Your task to perform on an android device: Go to ESPN.com Image 0: 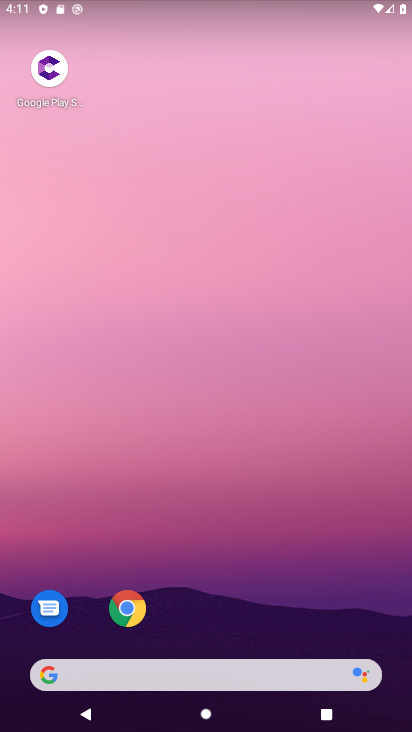
Step 0: drag from (322, 590) to (334, 120)
Your task to perform on an android device: Go to ESPN.com Image 1: 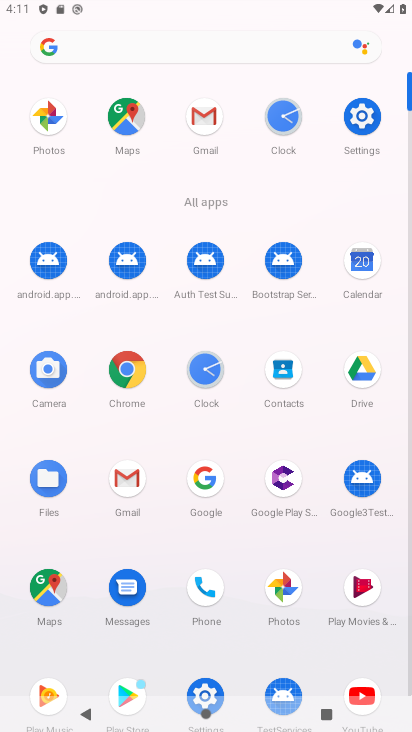
Step 1: click (137, 376)
Your task to perform on an android device: Go to ESPN.com Image 2: 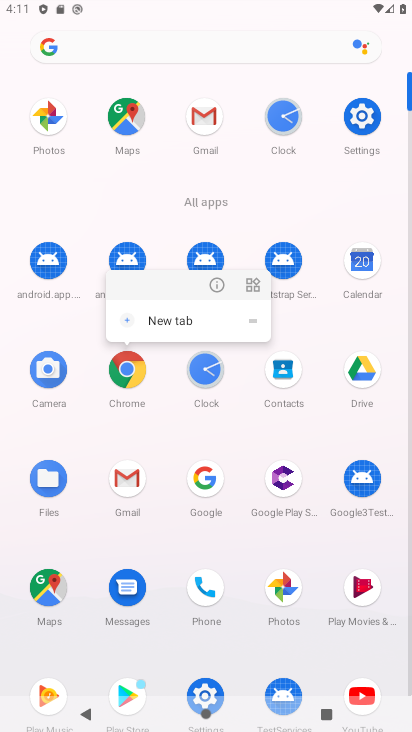
Step 2: click (126, 366)
Your task to perform on an android device: Go to ESPN.com Image 3: 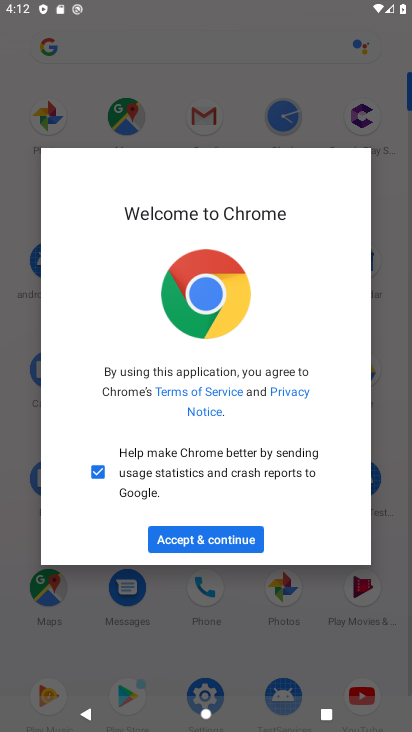
Step 3: click (252, 533)
Your task to perform on an android device: Go to ESPN.com Image 4: 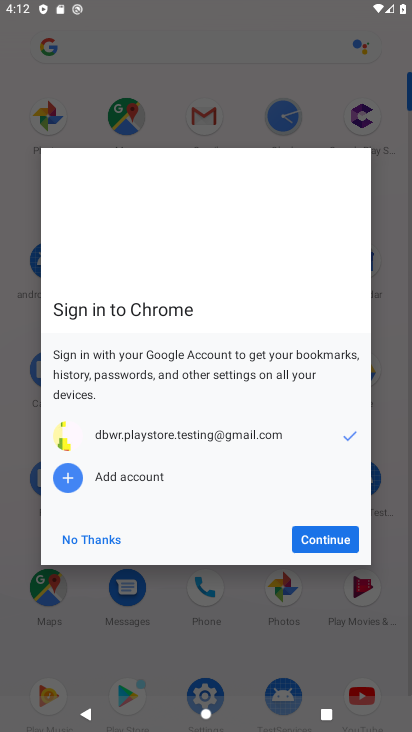
Step 4: click (333, 552)
Your task to perform on an android device: Go to ESPN.com Image 5: 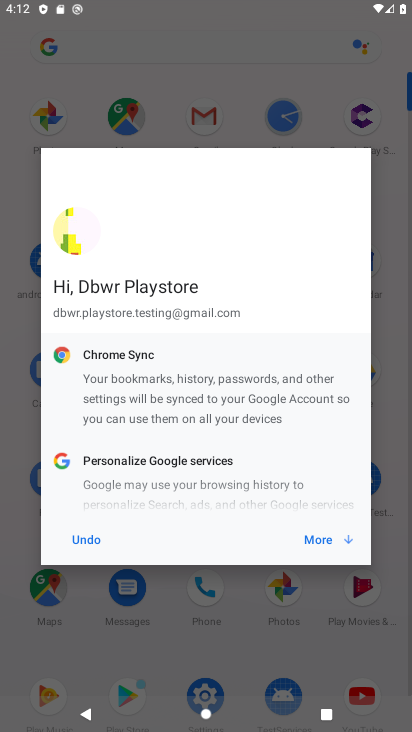
Step 5: click (333, 552)
Your task to perform on an android device: Go to ESPN.com Image 6: 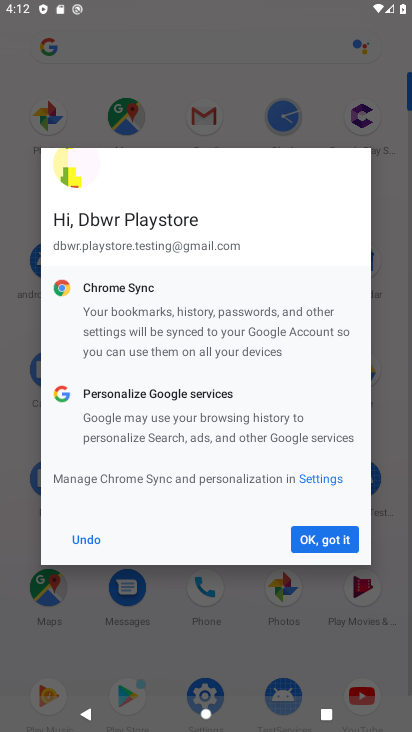
Step 6: click (333, 552)
Your task to perform on an android device: Go to ESPN.com Image 7: 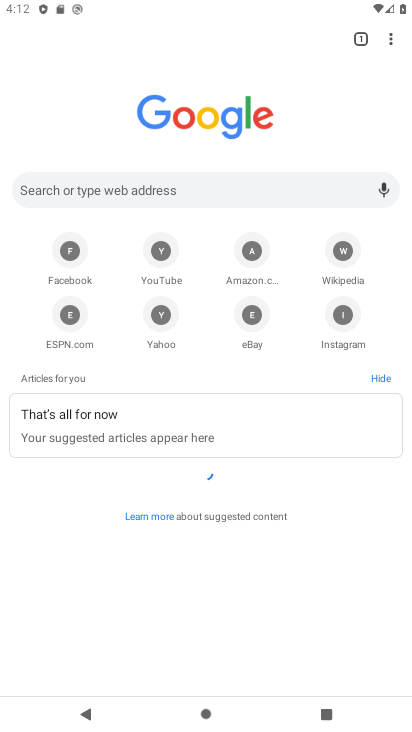
Step 7: click (76, 331)
Your task to perform on an android device: Go to ESPN.com Image 8: 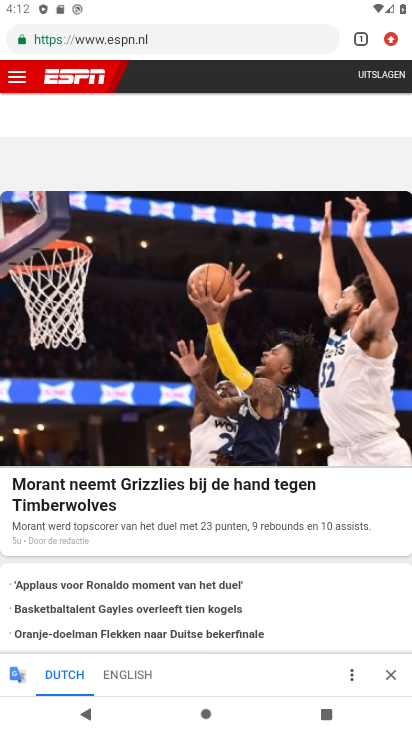
Step 8: task complete